Your task to perform on an android device: add a label to a message in the gmail app Image 0: 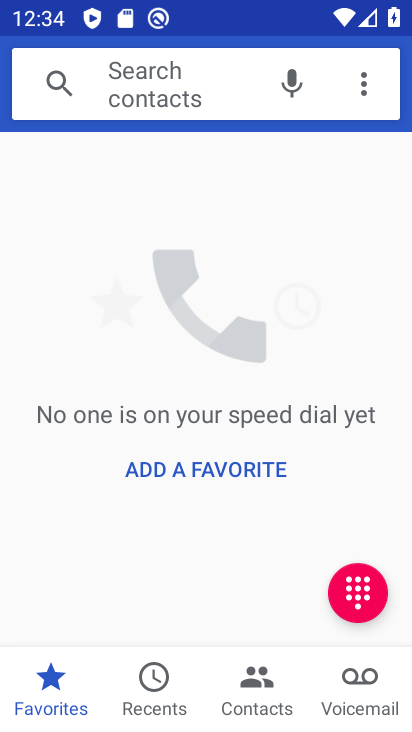
Step 0: press home button
Your task to perform on an android device: add a label to a message in the gmail app Image 1: 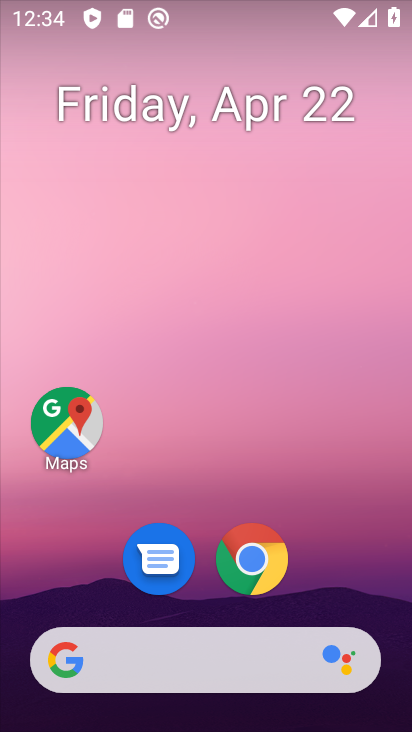
Step 1: drag from (332, 607) to (236, 87)
Your task to perform on an android device: add a label to a message in the gmail app Image 2: 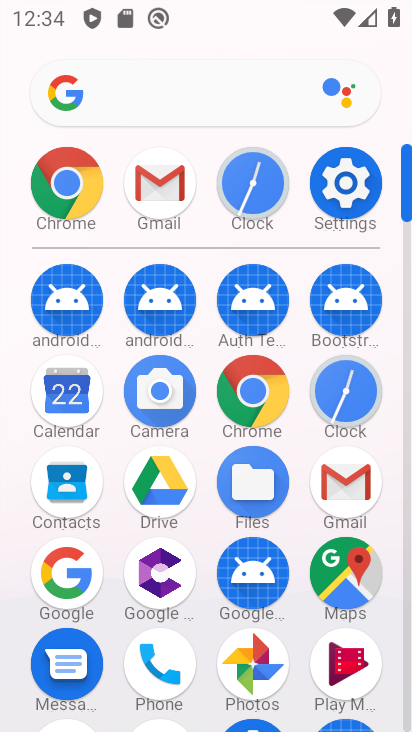
Step 2: click (348, 500)
Your task to perform on an android device: add a label to a message in the gmail app Image 3: 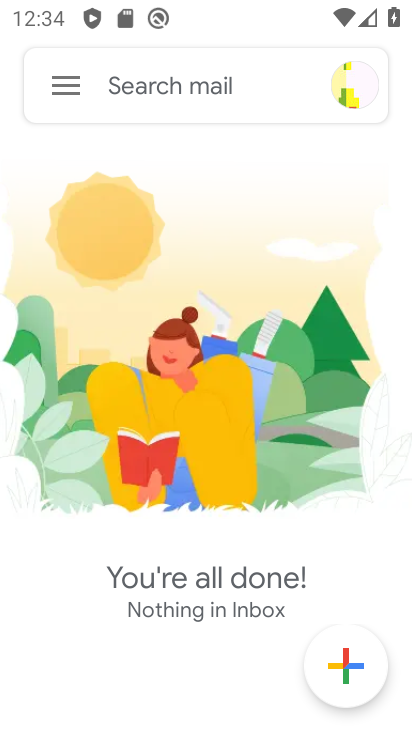
Step 3: task complete